Your task to perform on an android device: turn off javascript in the chrome app Image 0: 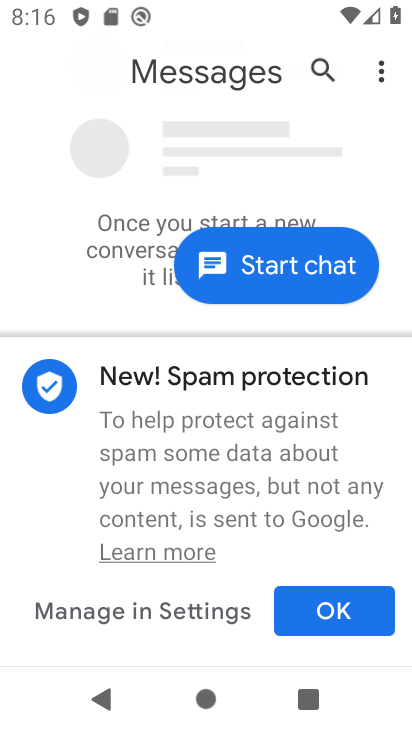
Step 0: press home button
Your task to perform on an android device: turn off javascript in the chrome app Image 1: 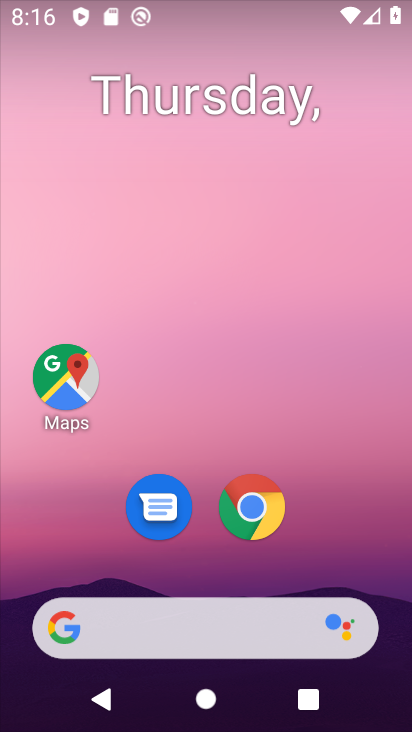
Step 1: drag from (228, 236) to (321, 45)
Your task to perform on an android device: turn off javascript in the chrome app Image 2: 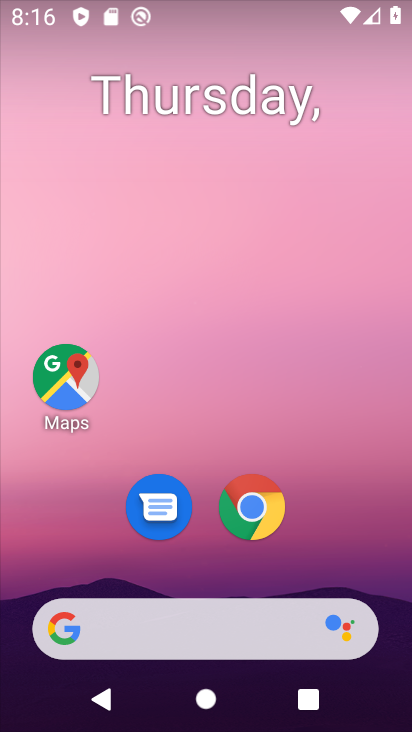
Step 2: click (258, 512)
Your task to perform on an android device: turn off javascript in the chrome app Image 3: 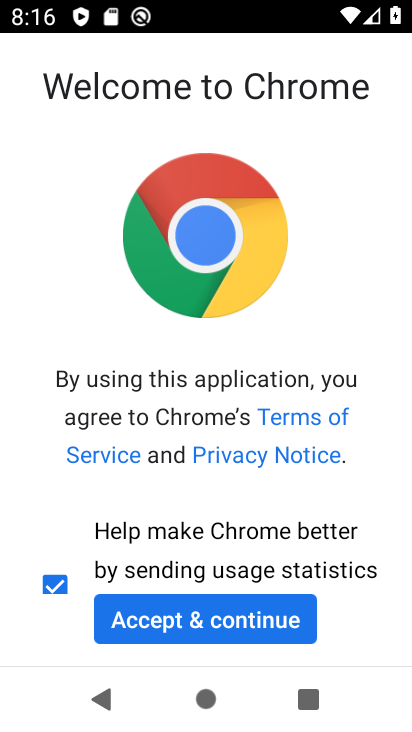
Step 3: click (225, 630)
Your task to perform on an android device: turn off javascript in the chrome app Image 4: 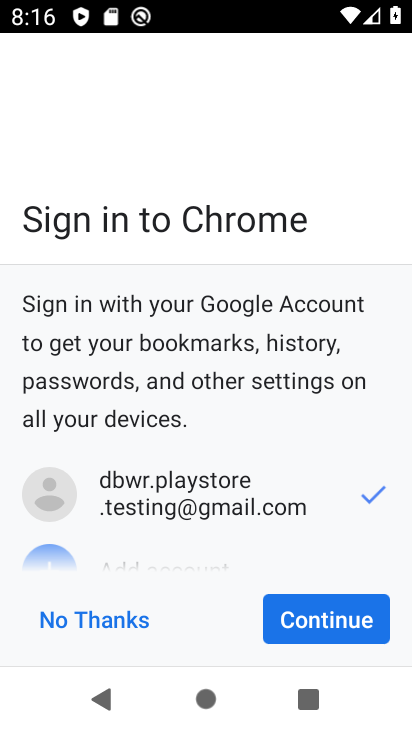
Step 4: click (294, 609)
Your task to perform on an android device: turn off javascript in the chrome app Image 5: 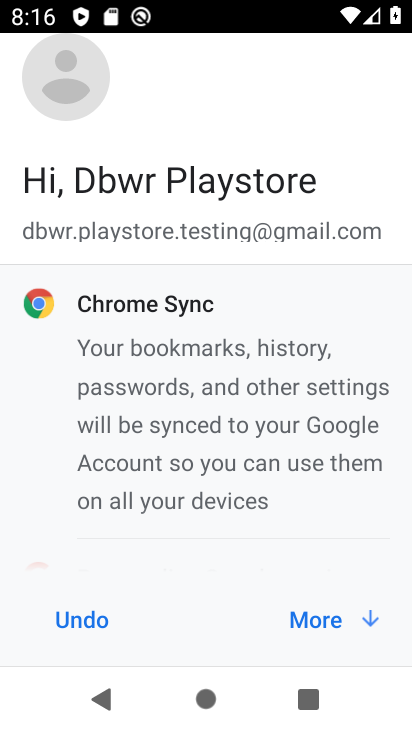
Step 5: click (305, 615)
Your task to perform on an android device: turn off javascript in the chrome app Image 6: 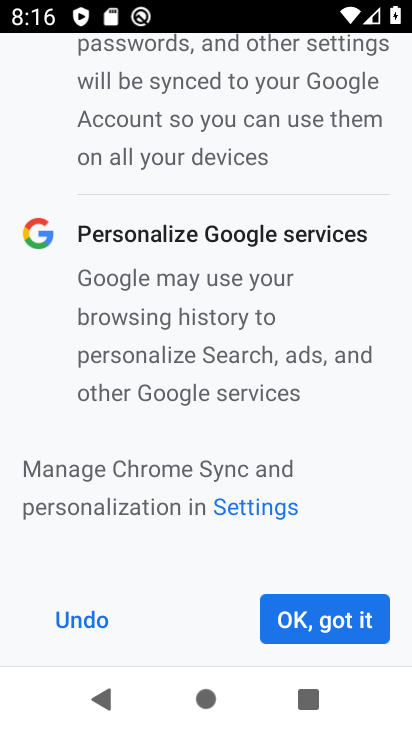
Step 6: click (304, 615)
Your task to perform on an android device: turn off javascript in the chrome app Image 7: 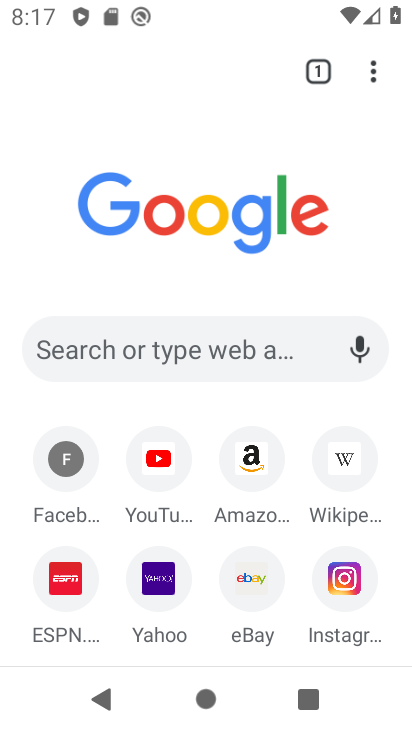
Step 7: click (364, 73)
Your task to perform on an android device: turn off javascript in the chrome app Image 8: 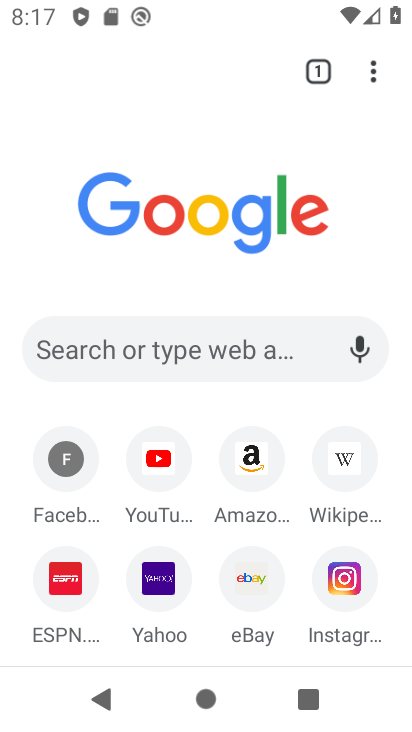
Step 8: click (379, 90)
Your task to perform on an android device: turn off javascript in the chrome app Image 9: 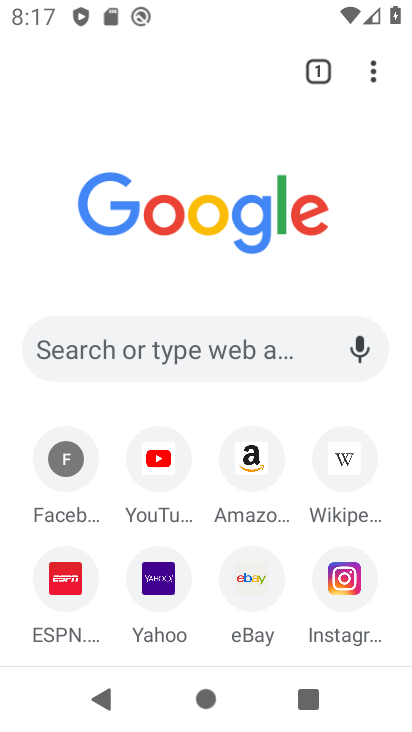
Step 9: click (372, 68)
Your task to perform on an android device: turn off javascript in the chrome app Image 10: 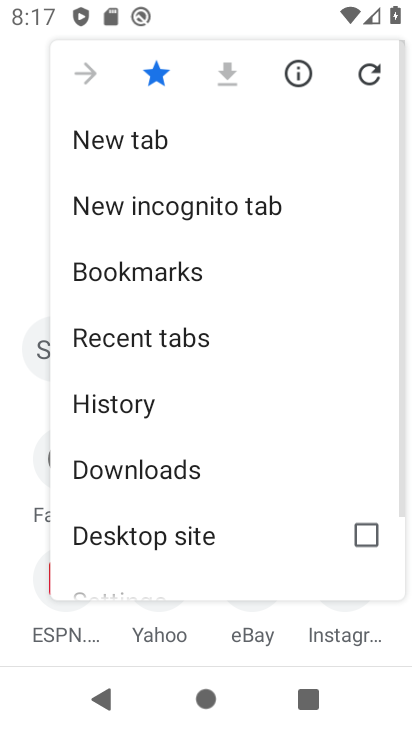
Step 10: drag from (147, 516) to (212, 137)
Your task to perform on an android device: turn off javascript in the chrome app Image 11: 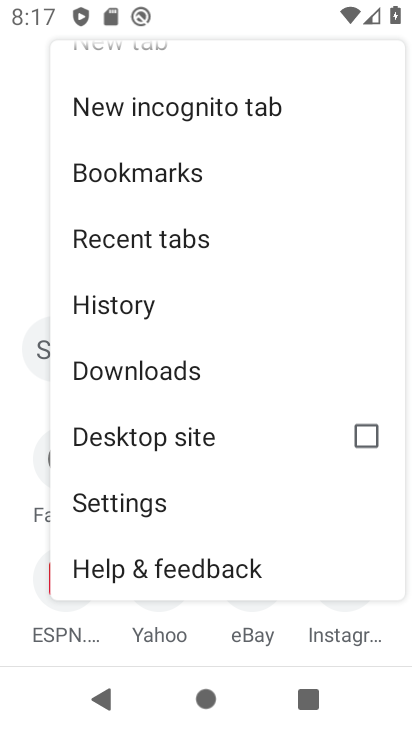
Step 11: click (109, 502)
Your task to perform on an android device: turn off javascript in the chrome app Image 12: 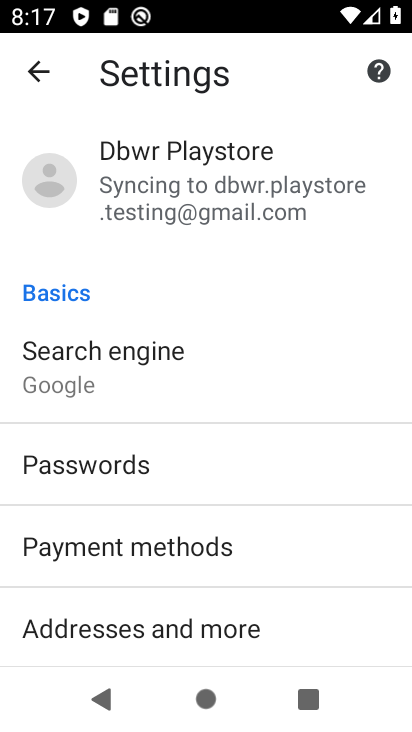
Step 12: drag from (110, 541) to (198, 215)
Your task to perform on an android device: turn off javascript in the chrome app Image 13: 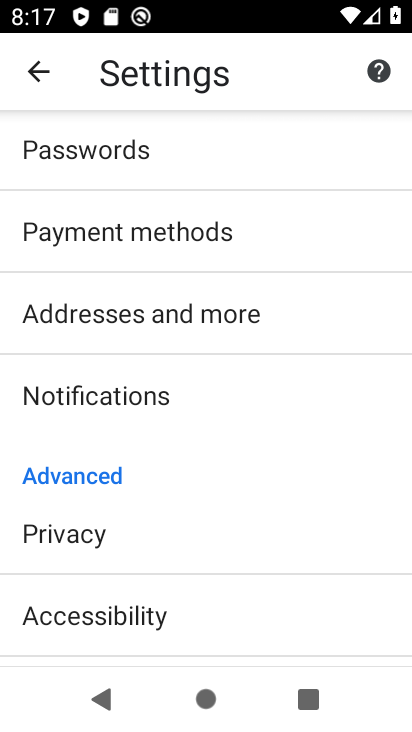
Step 13: drag from (116, 578) to (203, 247)
Your task to perform on an android device: turn off javascript in the chrome app Image 14: 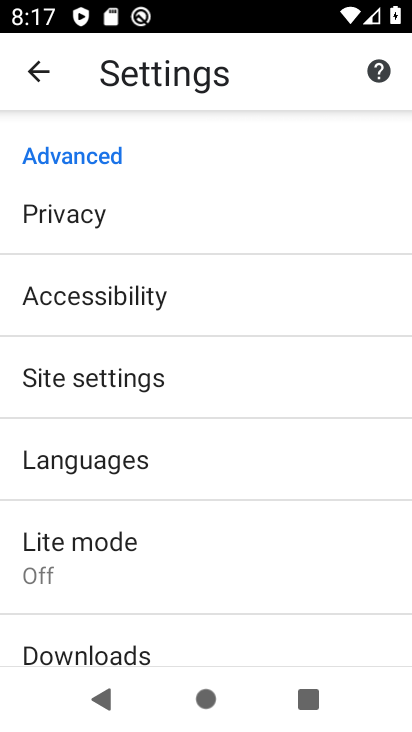
Step 14: click (138, 391)
Your task to perform on an android device: turn off javascript in the chrome app Image 15: 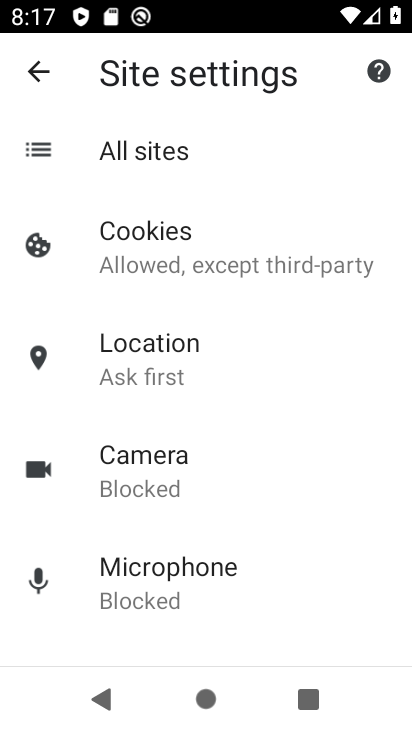
Step 15: drag from (172, 545) to (213, 248)
Your task to perform on an android device: turn off javascript in the chrome app Image 16: 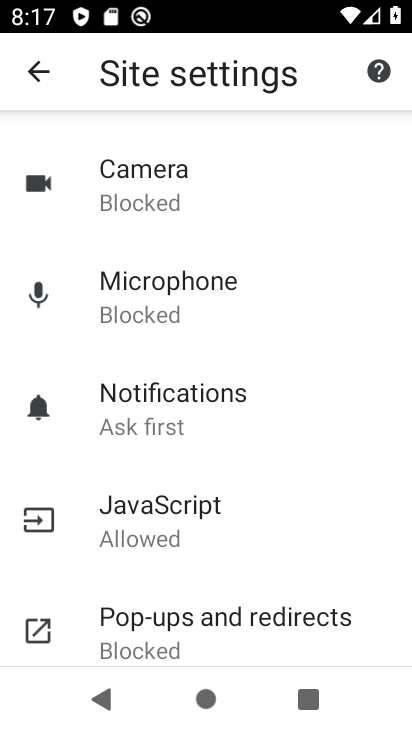
Step 16: click (153, 523)
Your task to perform on an android device: turn off javascript in the chrome app Image 17: 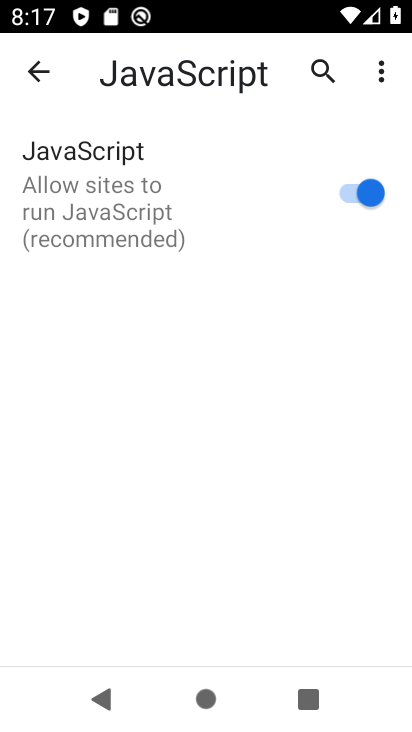
Step 17: click (341, 193)
Your task to perform on an android device: turn off javascript in the chrome app Image 18: 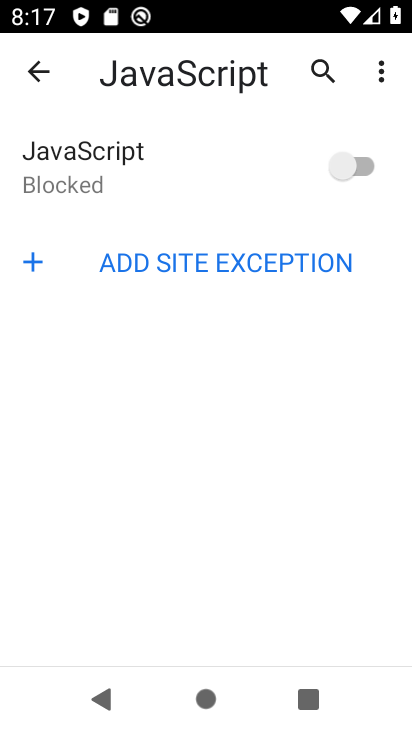
Step 18: task complete